Your task to perform on an android device: Open battery settings Image 0: 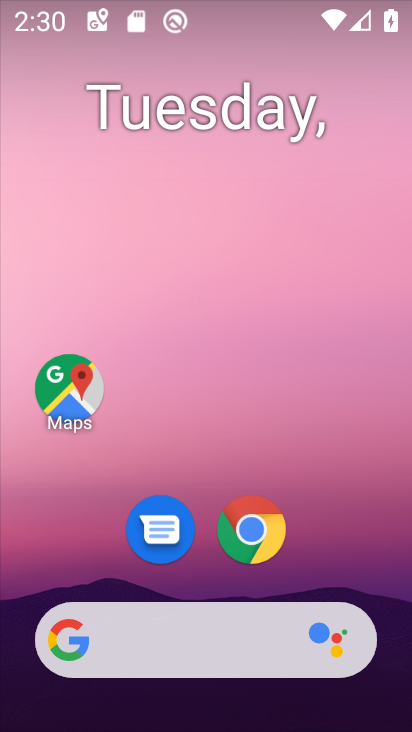
Step 0: drag from (332, 565) to (340, 258)
Your task to perform on an android device: Open battery settings Image 1: 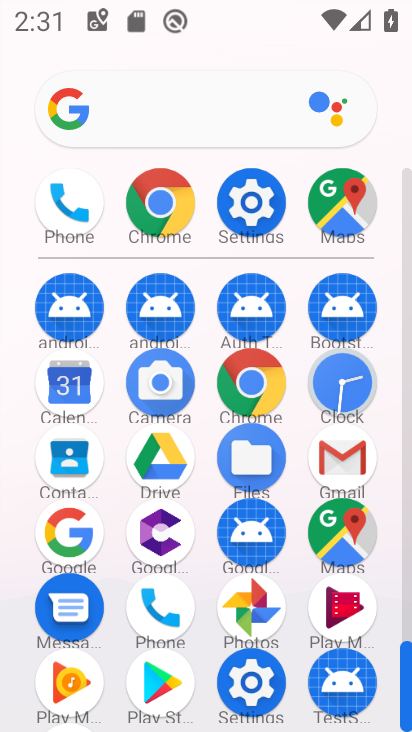
Step 1: click (240, 200)
Your task to perform on an android device: Open battery settings Image 2: 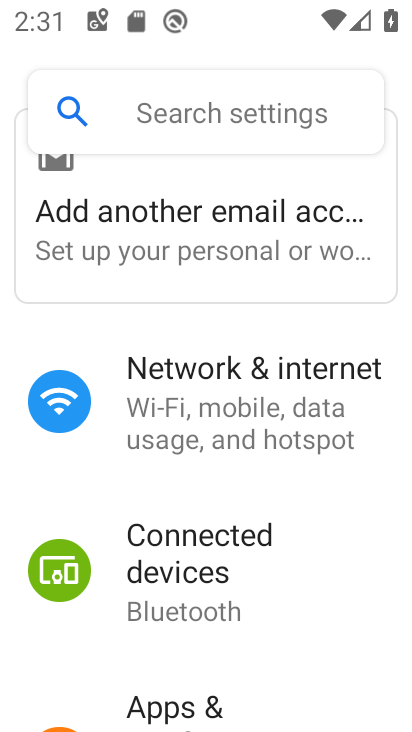
Step 2: drag from (204, 564) to (234, 218)
Your task to perform on an android device: Open battery settings Image 3: 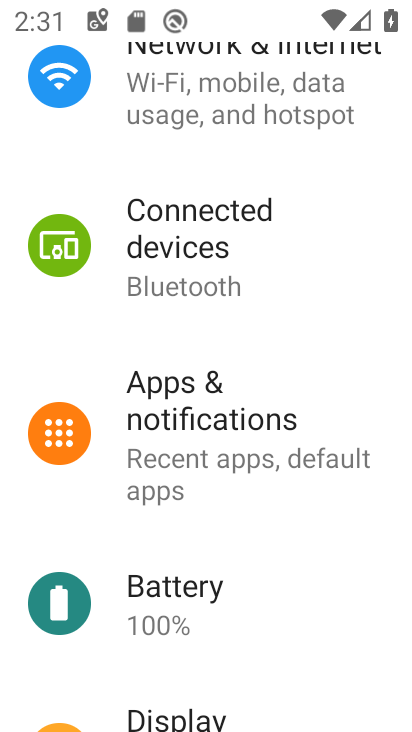
Step 3: drag from (216, 583) to (249, 238)
Your task to perform on an android device: Open battery settings Image 4: 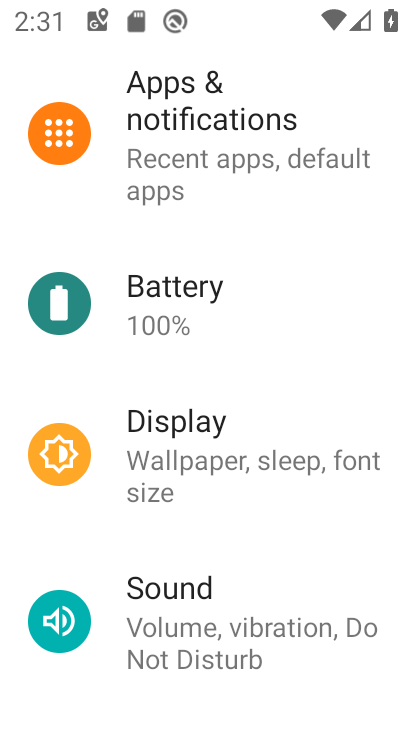
Step 4: click (163, 330)
Your task to perform on an android device: Open battery settings Image 5: 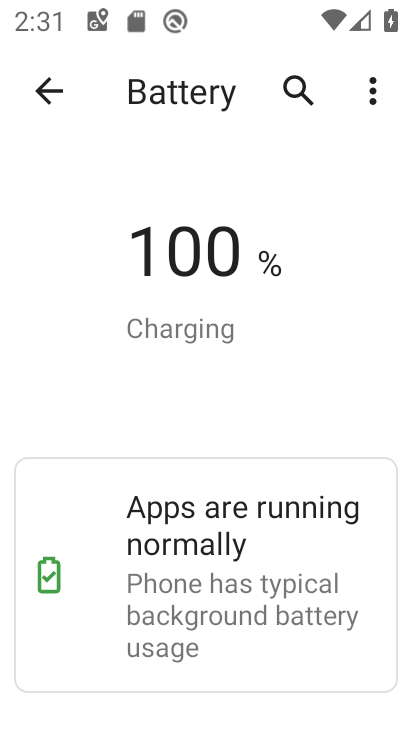
Step 5: task complete